Your task to perform on an android device: open a new tab in the chrome app Image 0: 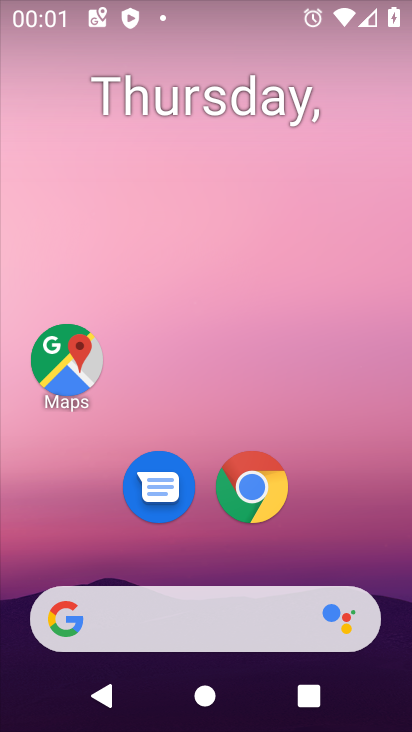
Step 0: click (255, 493)
Your task to perform on an android device: open a new tab in the chrome app Image 1: 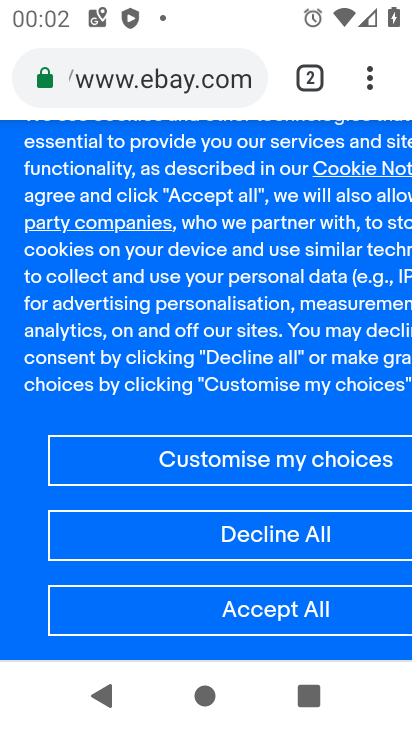
Step 1: click (373, 80)
Your task to perform on an android device: open a new tab in the chrome app Image 2: 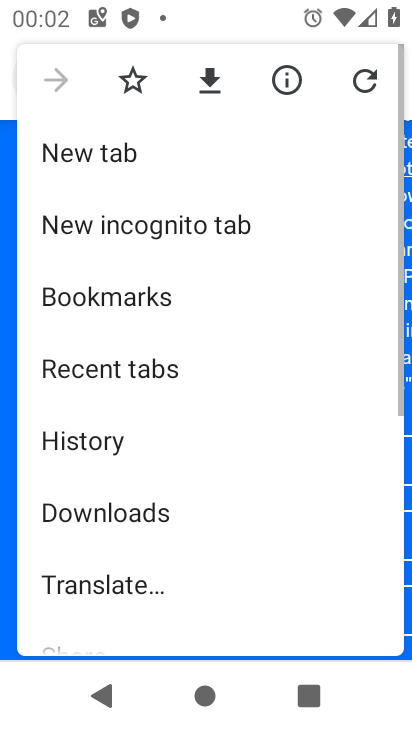
Step 2: click (104, 156)
Your task to perform on an android device: open a new tab in the chrome app Image 3: 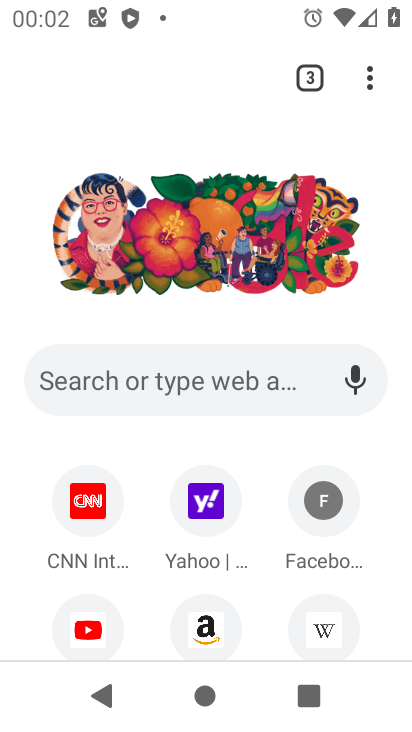
Step 3: task complete